Your task to perform on an android device: Open location settings Image 0: 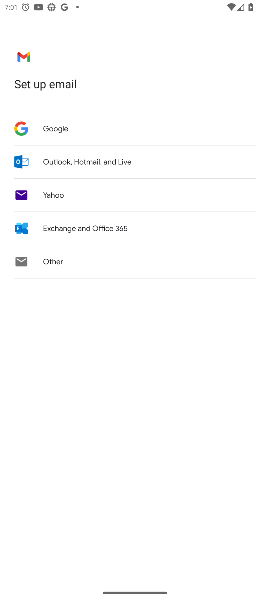
Step 0: press home button
Your task to perform on an android device: Open location settings Image 1: 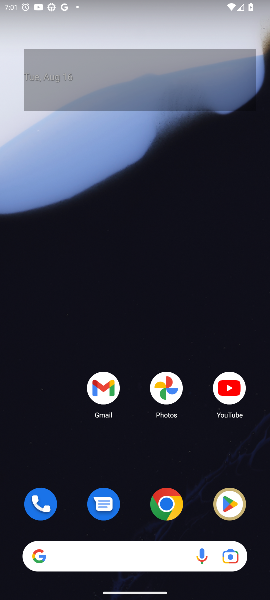
Step 1: drag from (15, 548) to (125, 231)
Your task to perform on an android device: Open location settings Image 2: 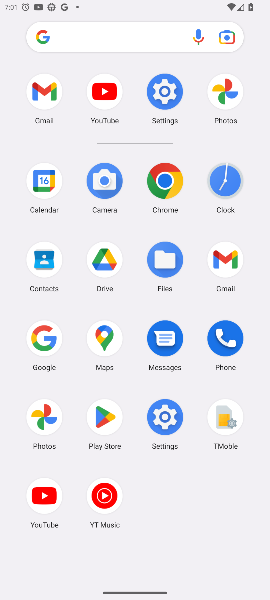
Step 2: click (160, 419)
Your task to perform on an android device: Open location settings Image 3: 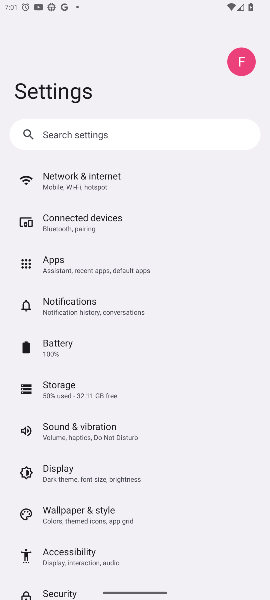
Step 3: drag from (178, 479) to (199, 217)
Your task to perform on an android device: Open location settings Image 4: 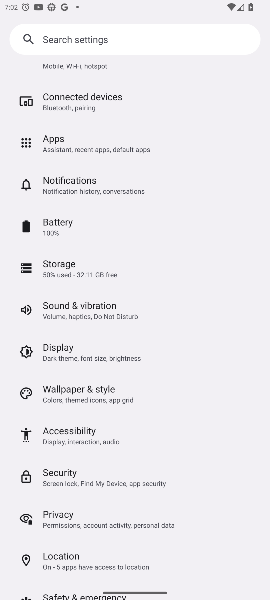
Step 4: click (74, 552)
Your task to perform on an android device: Open location settings Image 5: 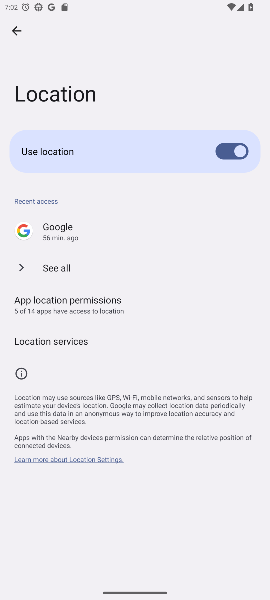
Step 5: task complete